Your task to perform on an android device: turn pop-ups off in chrome Image 0: 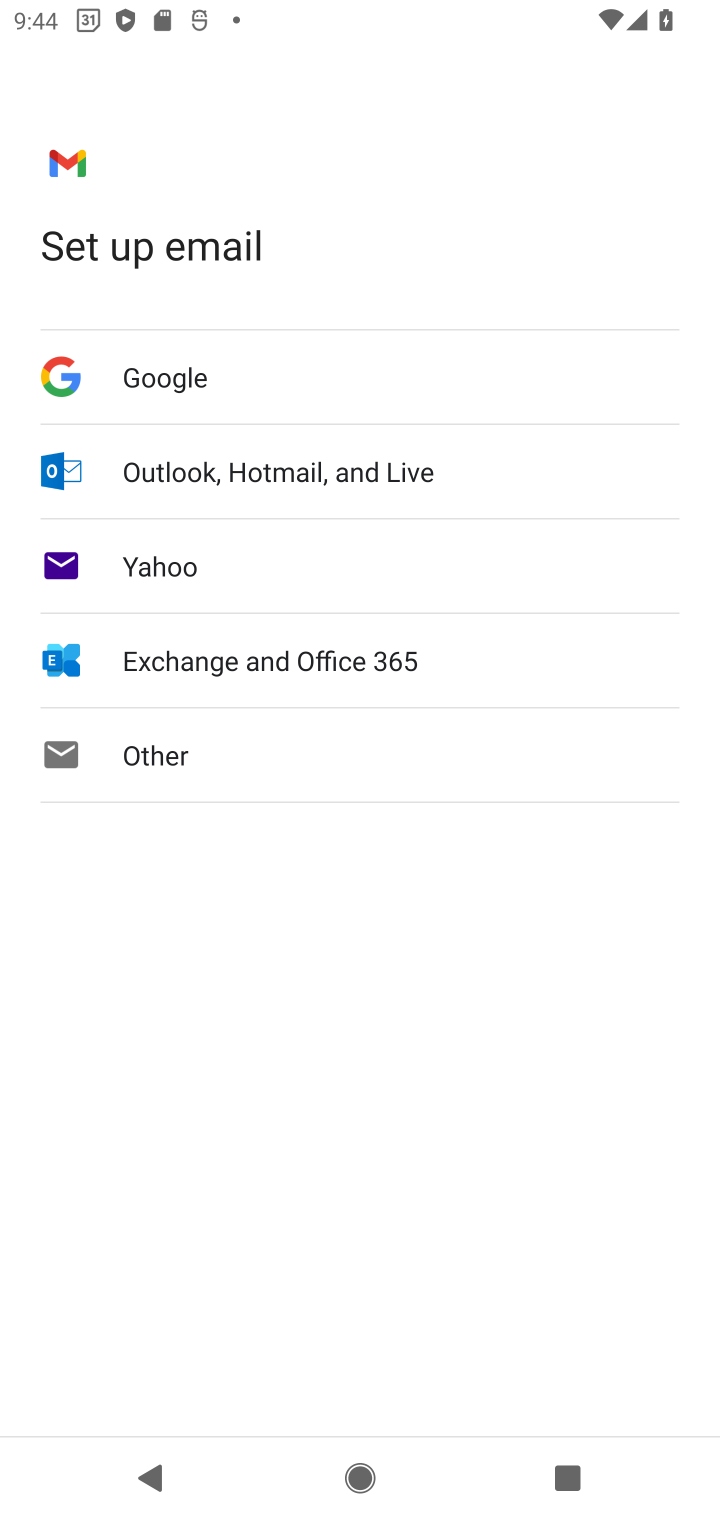
Step 0: press home button
Your task to perform on an android device: turn pop-ups off in chrome Image 1: 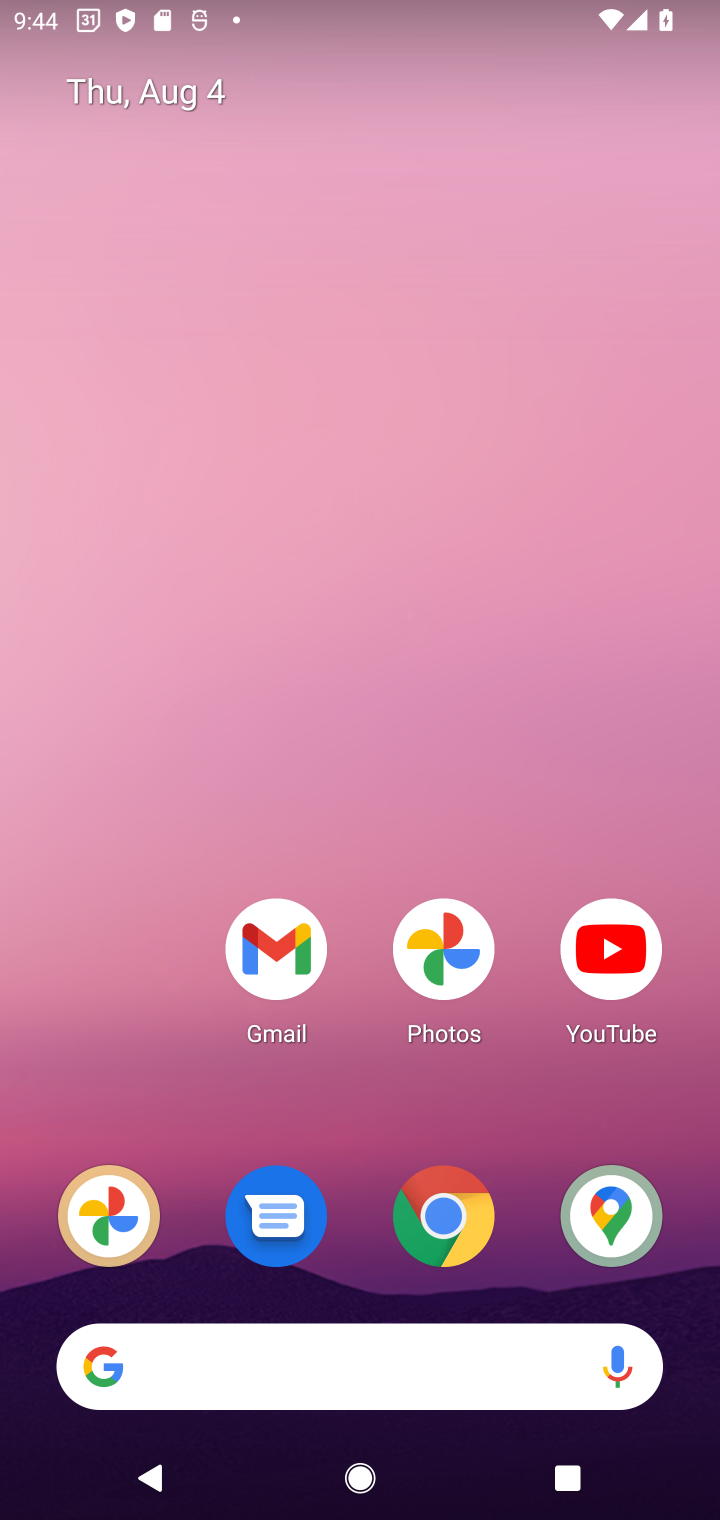
Step 1: click (450, 1223)
Your task to perform on an android device: turn pop-ups off in chrome Image 2: 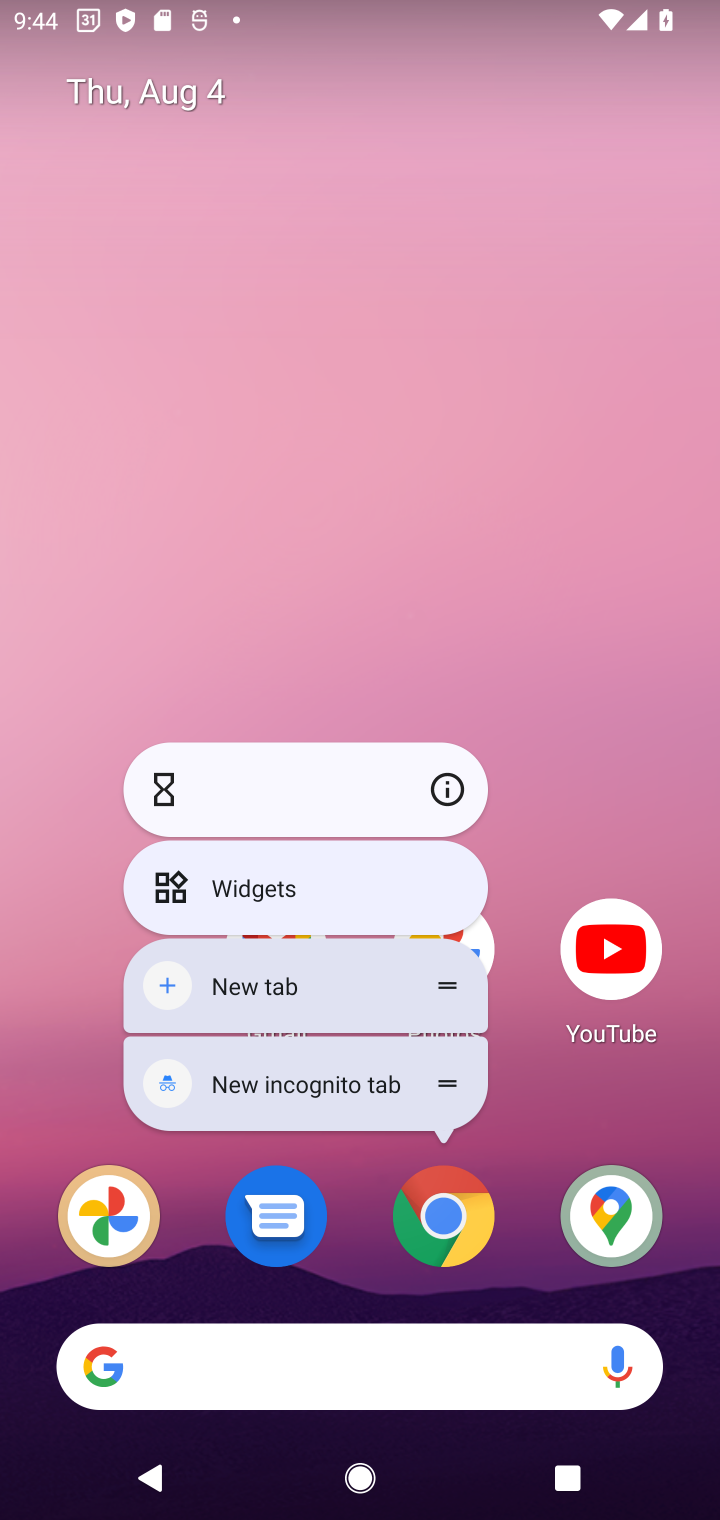
Step 2: click (447, 1226)
Your task to perform on an android device: turn pop-ups off in chrome Image 3: 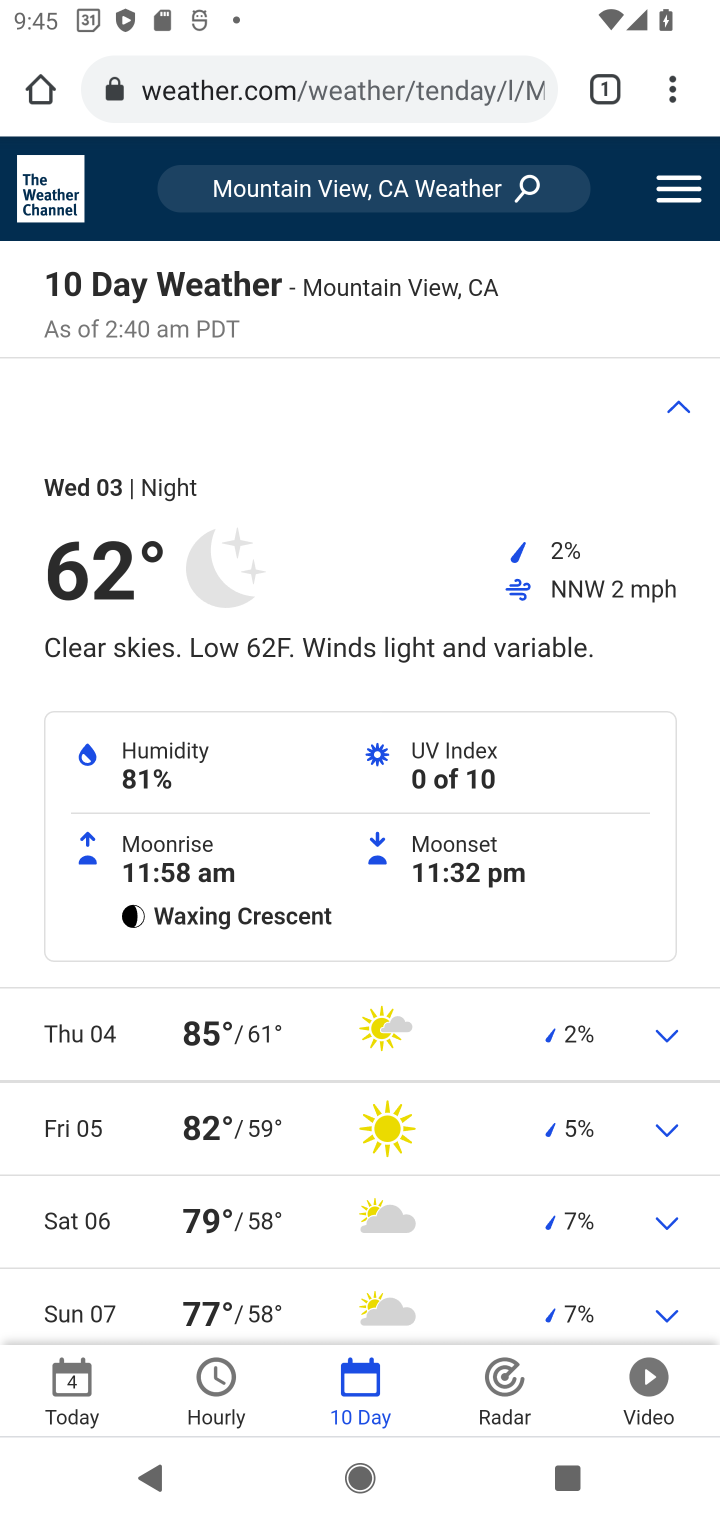
Step 3: click (670, 96)
Your task to perform on an android device: turn pop-ups off in chrome Image 4: 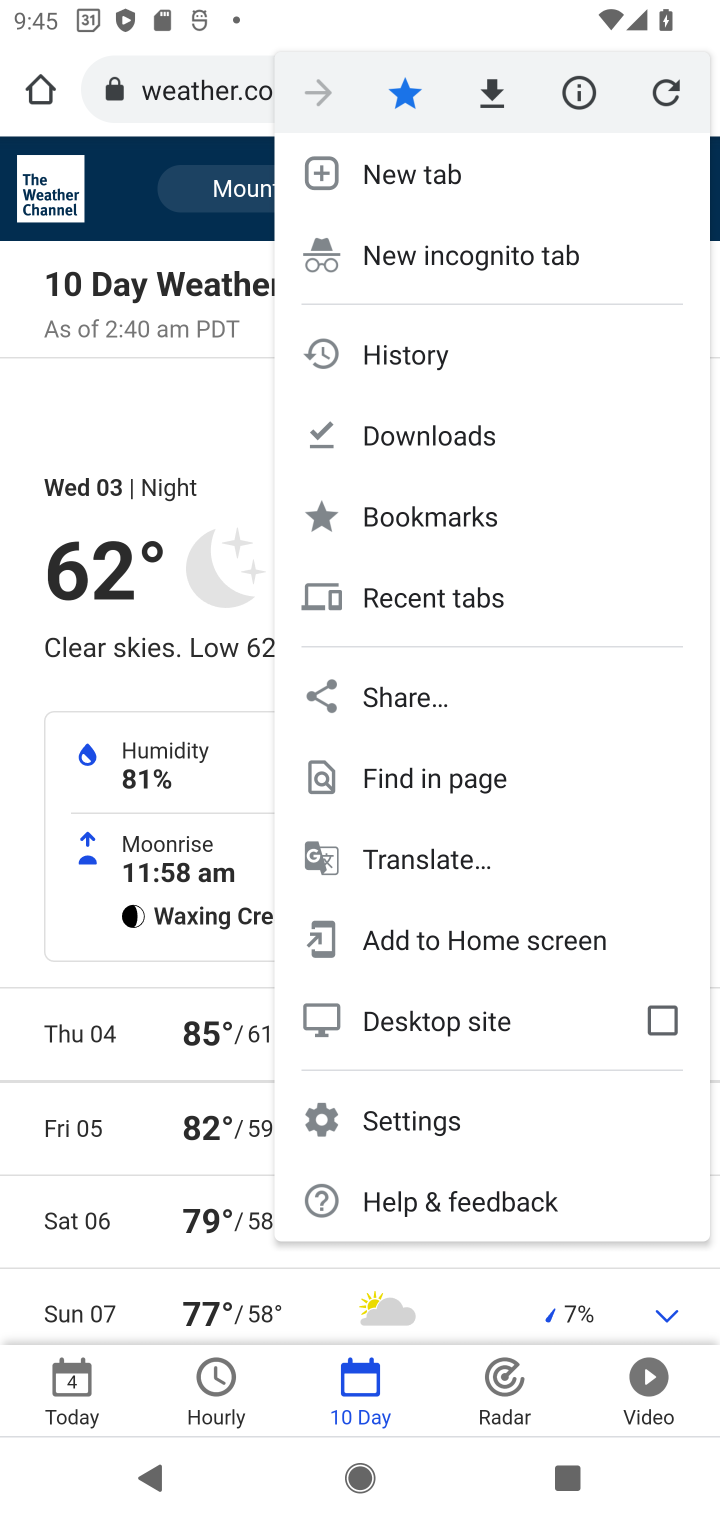
Step 4: click (432, 1124)
Your task to perform on an android device: turn pop-ups off in chrome Image 5: 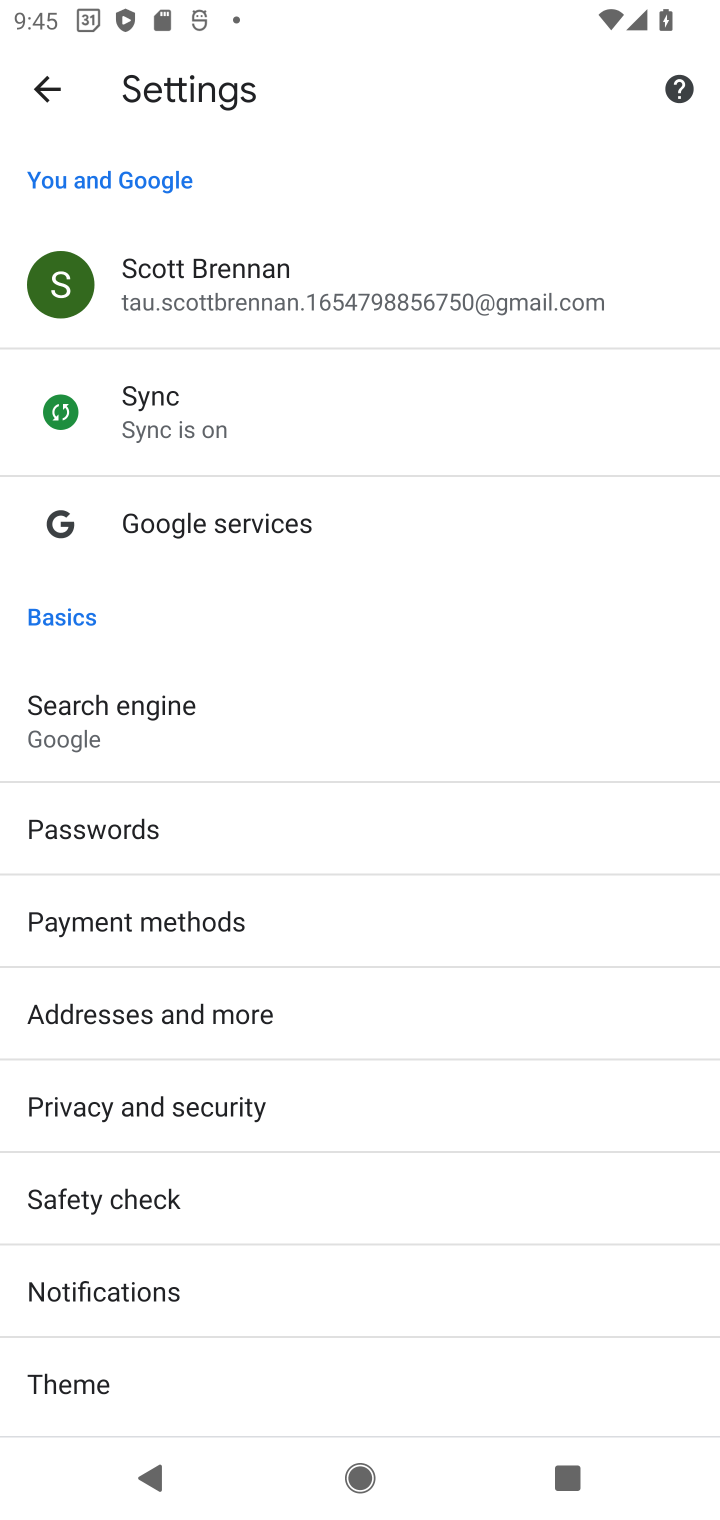
Step 5: drag from (295, 1245) to (286, 897)
Your task to perform on an android device: turn pop-ups off in chrome Image 6: 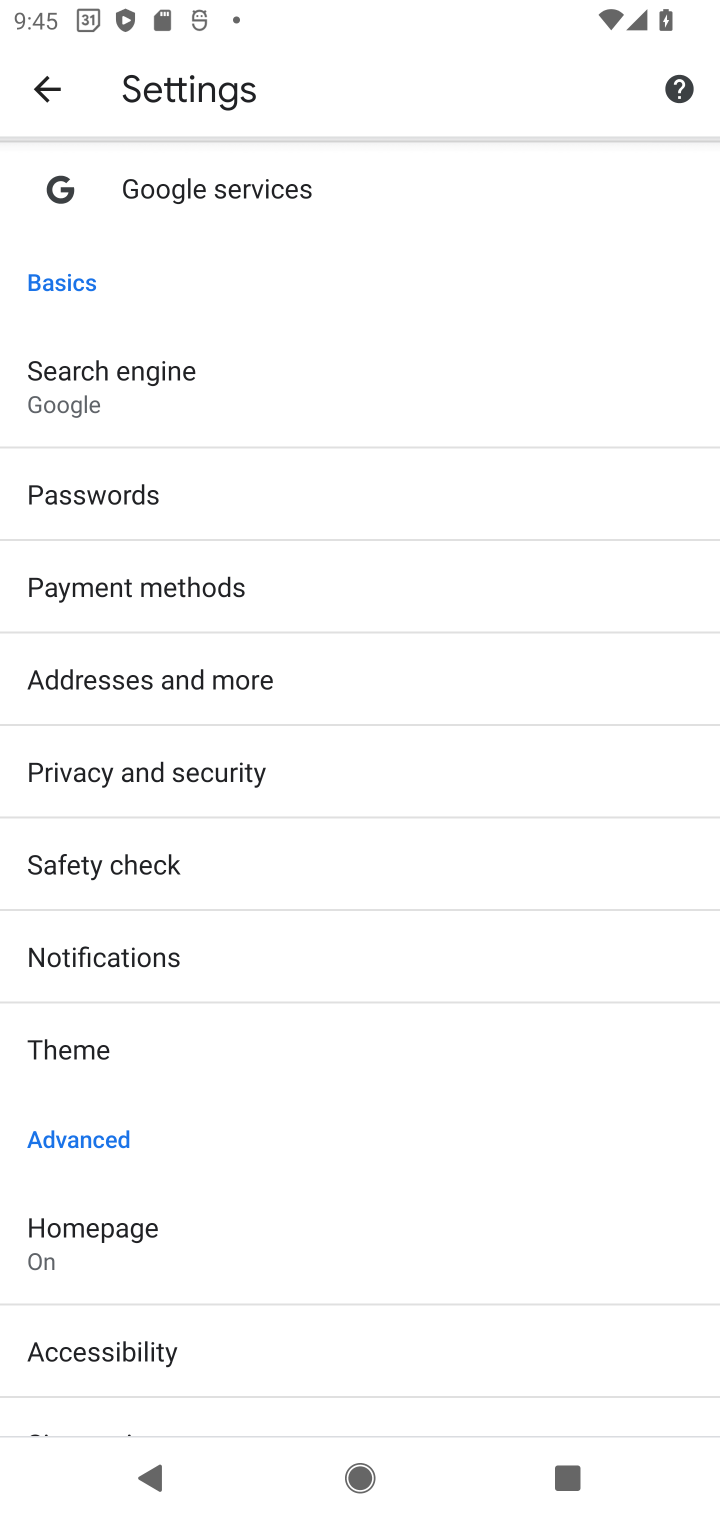
Step 6: drag from (311, 1266) to (313, 967)
Your task to perform on an android device: turn pop-ups off in chrome Image 7: 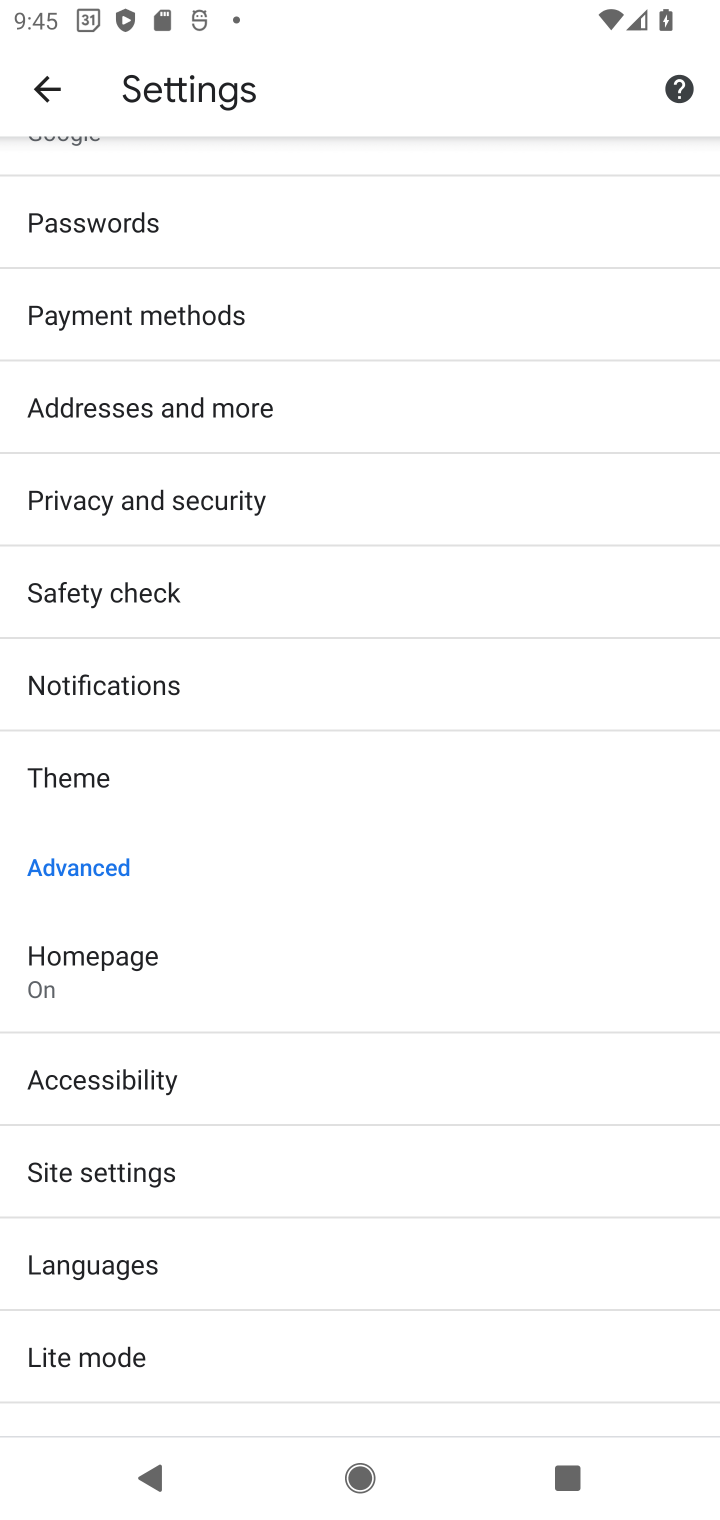
Step 7: click (161, 1163)
Your task to perform on an android device: turn pop-ups off in chrome Image 8: 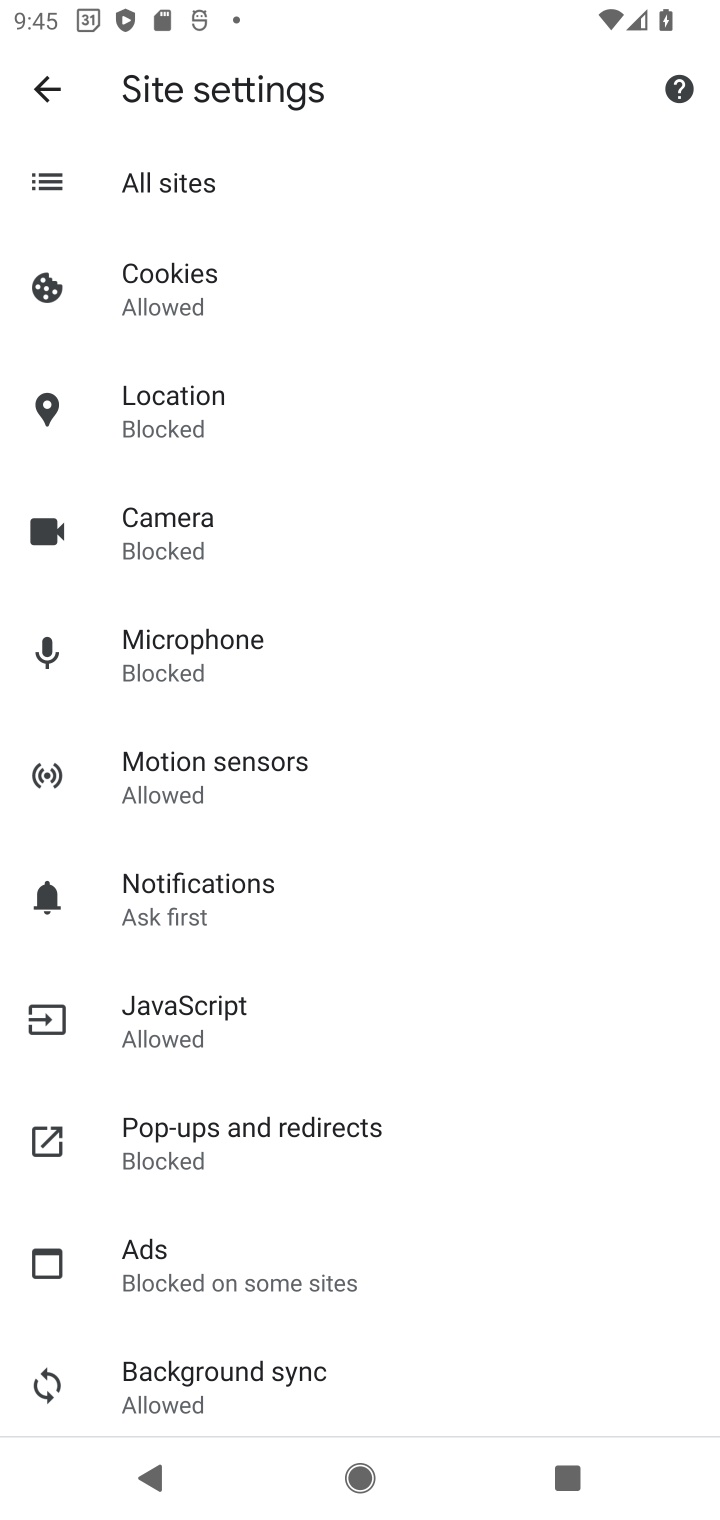
Step 8: click (273, 1118)
Your task to perform on an android device: turn pop-ups off in chrome Image 9: 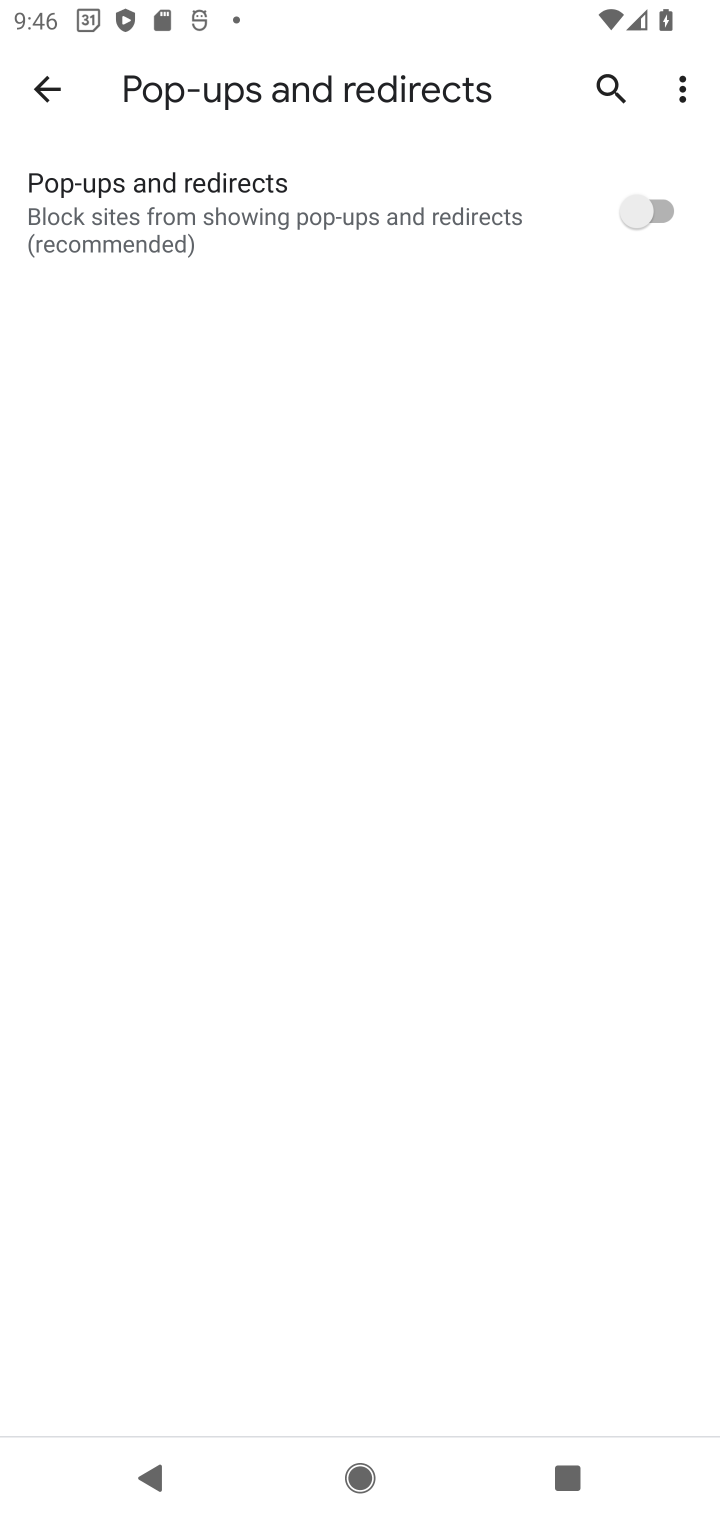
Step 9: task complete